Your task to perform on an android device: Open internet settings Image 0: 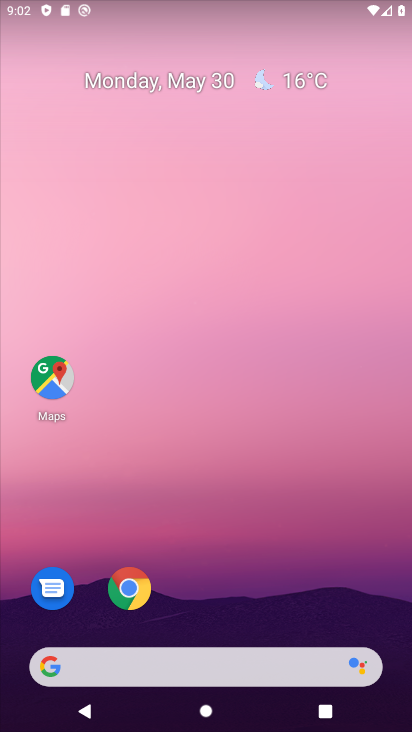
Step 0: drag from (202, 636) to (318, 112)
Your task to perform on an android device: Open internet settings Image 1: 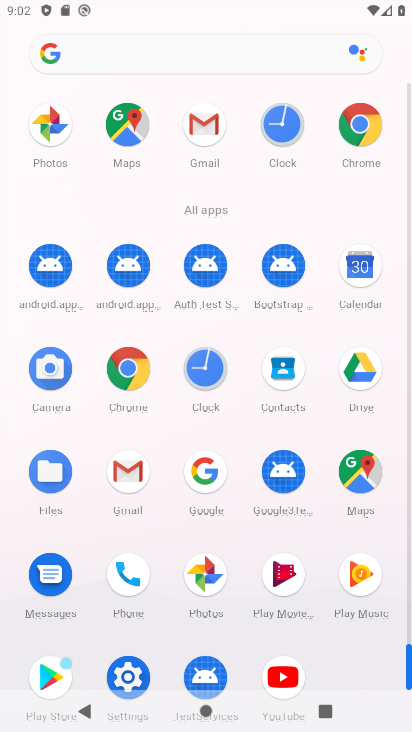
Step 1: drag from (218, 566) to (253, 400)
Your task to perform on an android device: Open internet settings Image 2: 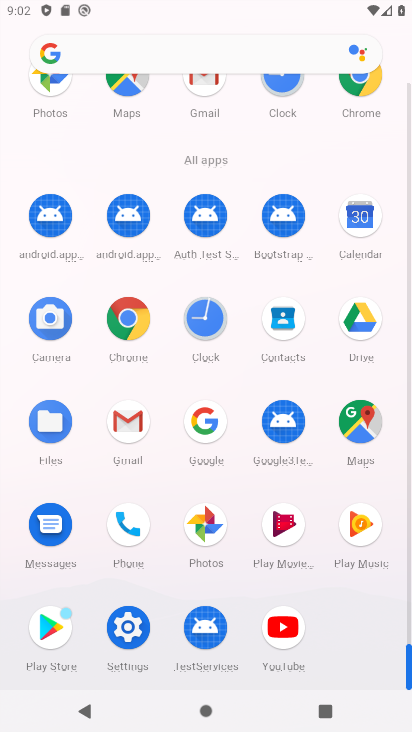
Step 2: click (128, 635)
Your task to perform on an android device: Open internet settings Image 3: 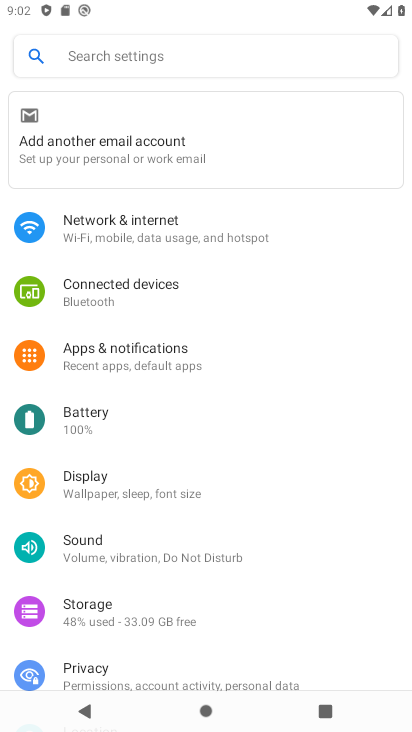
Step 3: click (268, 234)
Your task to perform on an android device: Open internet settings Image 4: 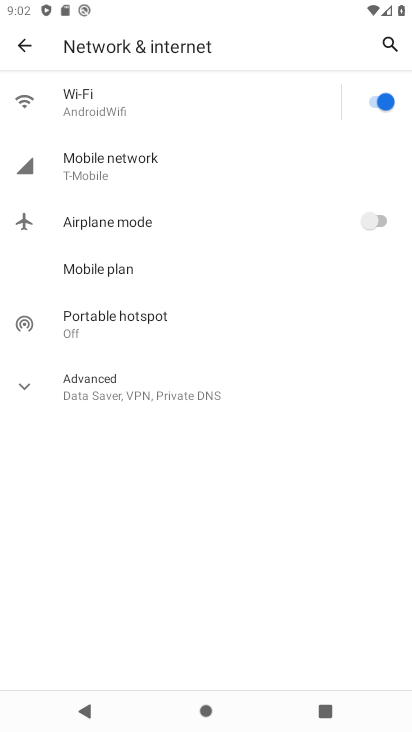
Step 4: click (187, 161)
Your task to perform on an android device: Open internet settings Image 5: 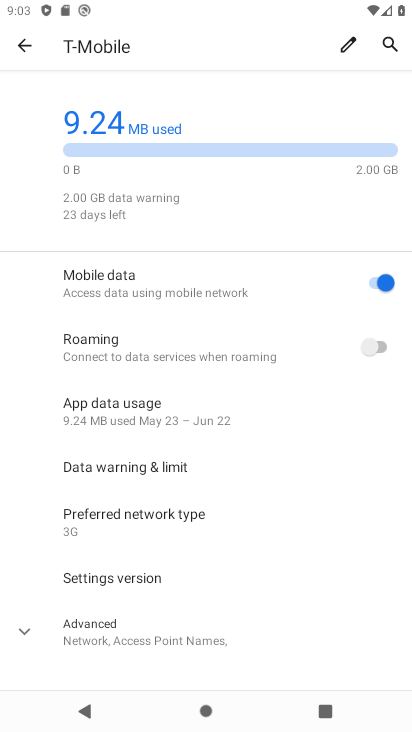
Step 5: task complete